Your task to perform on an android device: turn notification dots off Image 0: 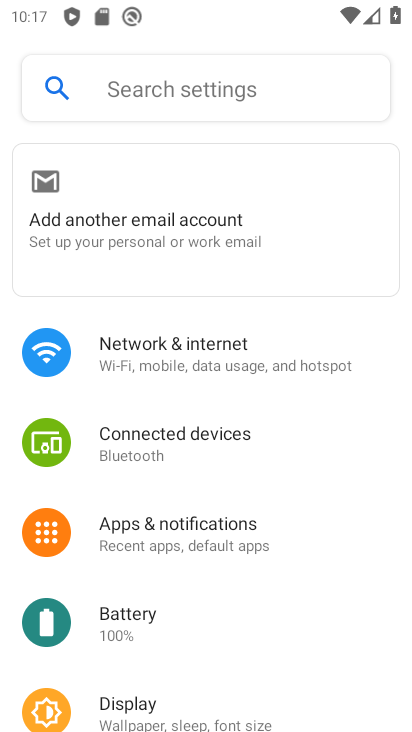
Step 0: click (167, 524)
Your task to perform on an android device: turn notification dots off Image 1: 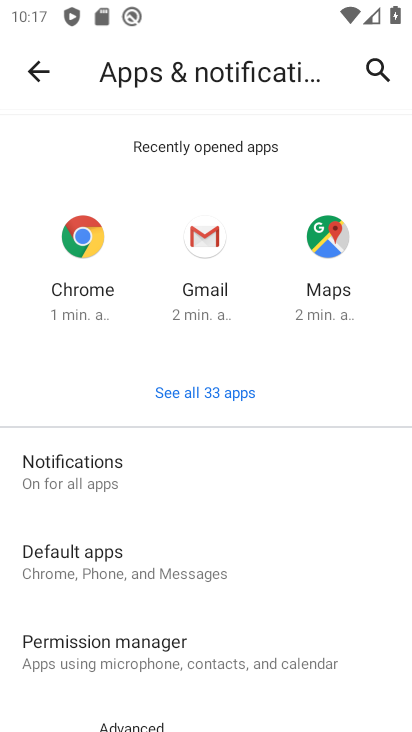
Step 1: click (76, 473)
Your task to perform on an android device: turn notification dots off Image 2: 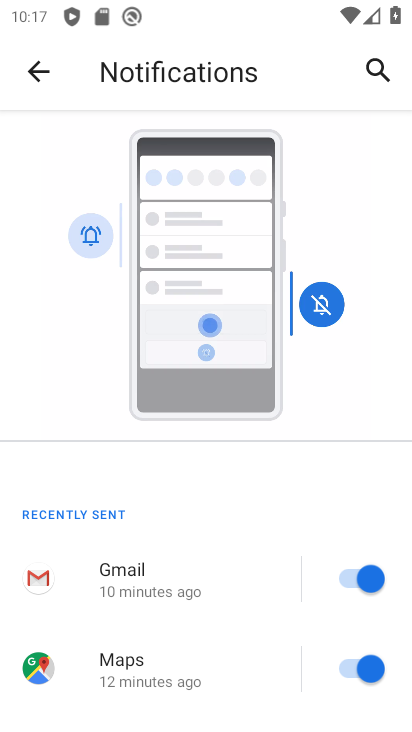
Step 2: drag from (226, 693) to (229, 321)
Your task to perform on an android device: turn notification dots off Image 3: 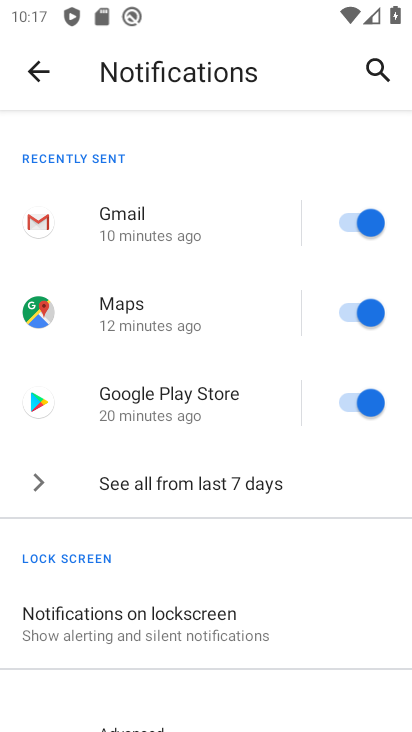
Step 3: drag from (223, 675) to (223, 371)
Your task to perform on an android device: turn notification dots off Image 4: 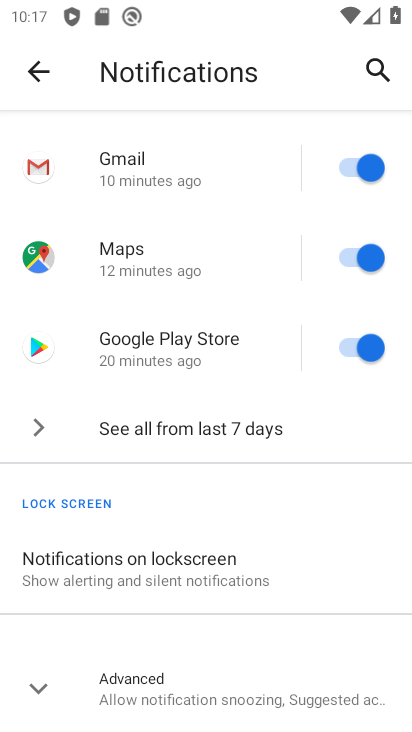
Step 4: click (141, 683)
Your task to perform on an android device: turn notification dots off Image 5: 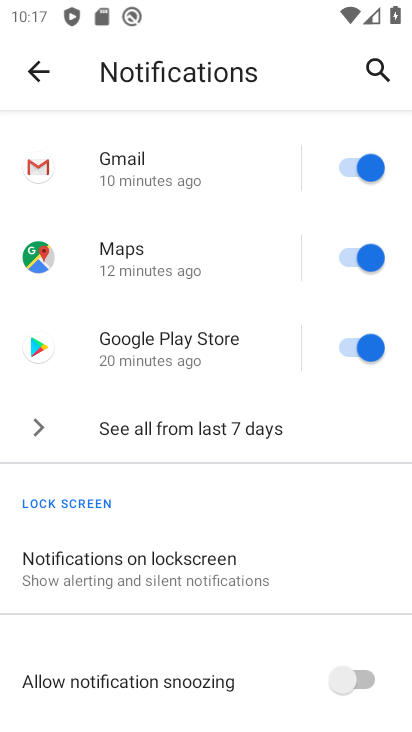
Step 5: drag from (234, 694) to (254, 301)
Your task to perform on an android device: turn notification dots off Image 6: 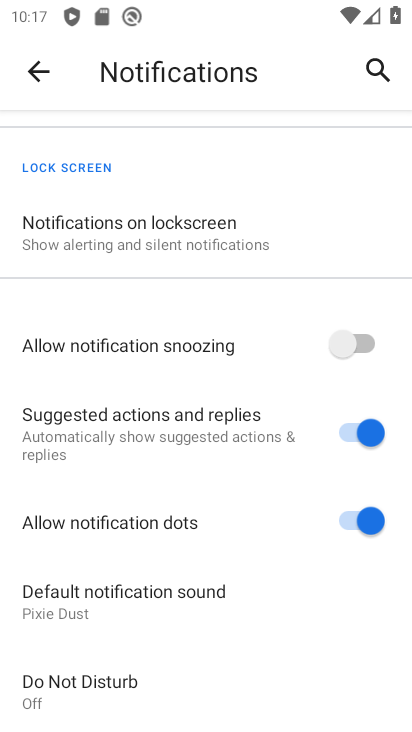
Step 6: click (339, 513)
Your task to perform on an android device: turn notification dots off Image 7: 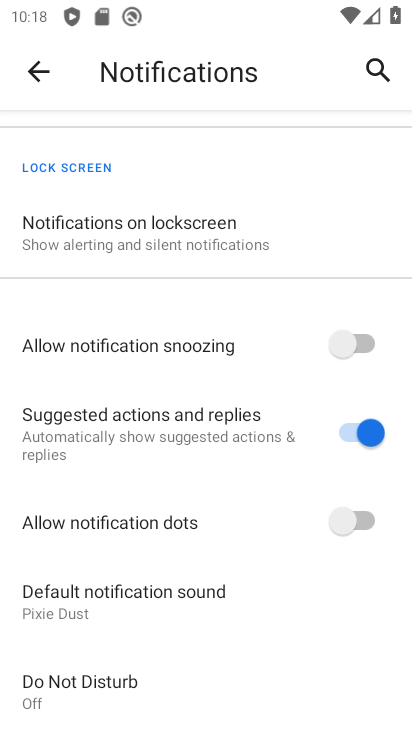
Step 7: task complete